Your task to perform on an android device: change the clock display to digital Image 0: 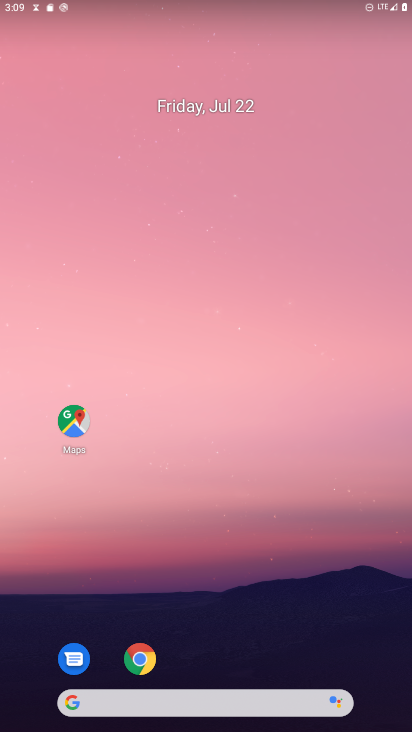
Step 0: drag from (304, 701) to (407, 2)
Your task to perform on an android device: change the clock display to digital Image 1: 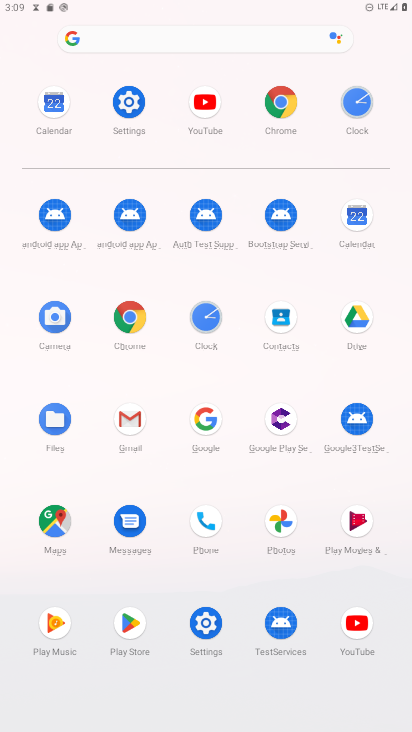
Step 1: click (360, 106)
Your task to perform on an android device: change the clock display to digital Image 2: 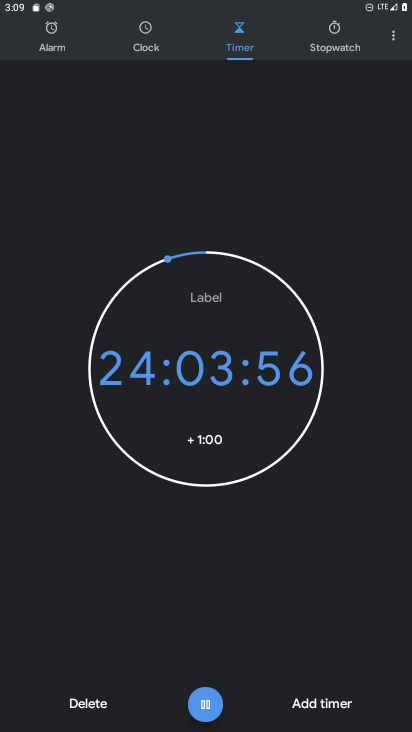
Step 2: click (397, 31)
Your task to perform on an android device: change the clock display to digital Image 3: 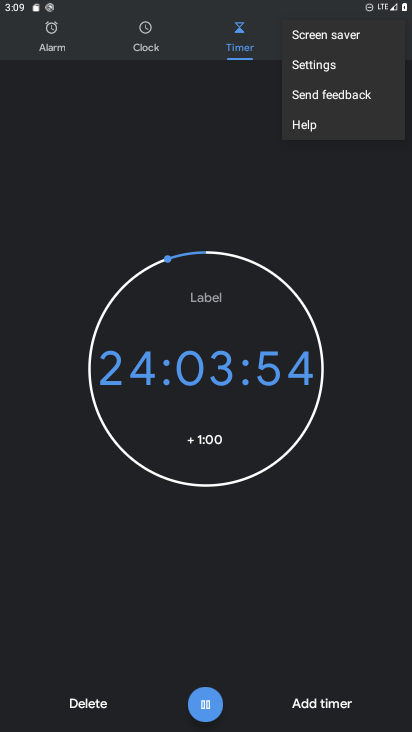
Step 3: click (297, 66)
Your task to perform on an android device: change the clock display to digital Image 4: 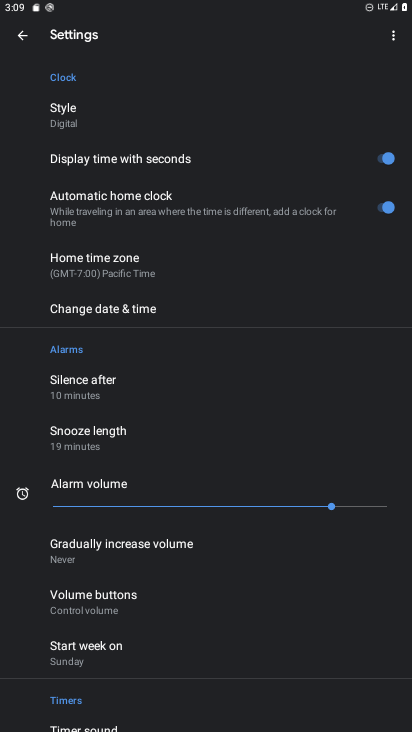
Step 4: task complete